Your task to perform on an android device: Show me recent news Image 0: 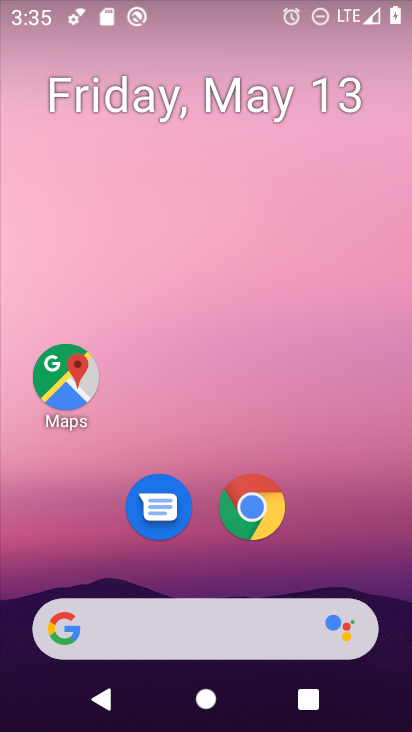
Step 0: drag from (337, 348) to (294, 166)
Your task to perform on an android device: Show me recent news Image 1: 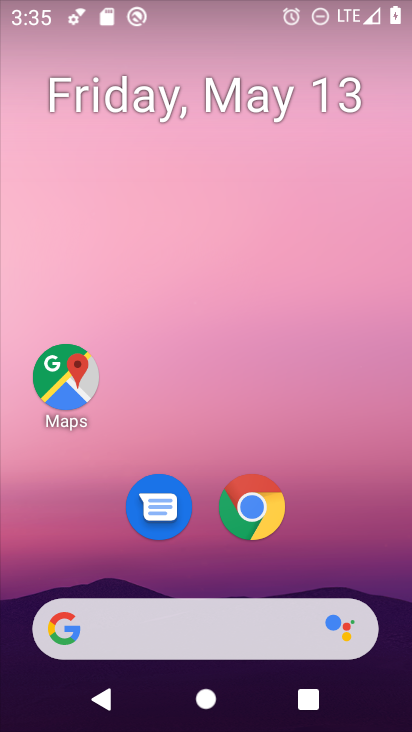
Step 1: click (171, 630)
Your task to perform on an android device: Show me recent news Image 2: 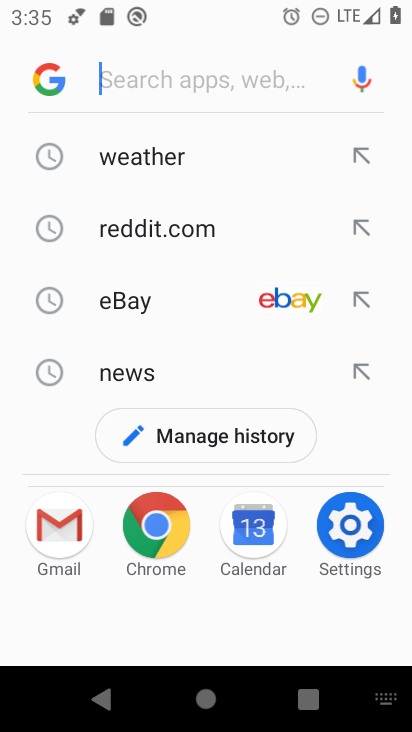
Step 2: type "recent news"
Your task to perform on an android device: Show me recent news Image 3: 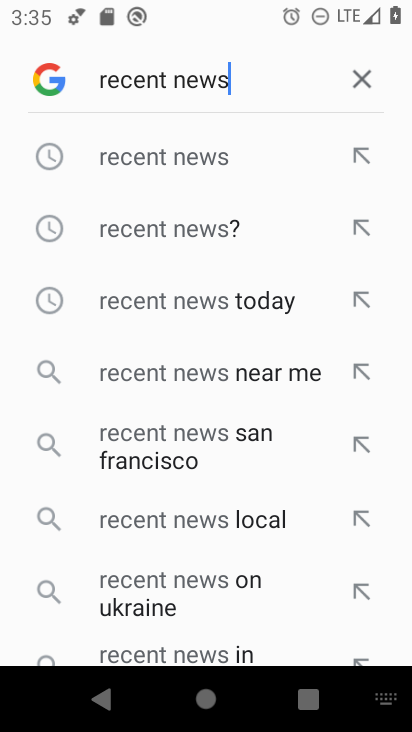
Step 3: click (236, 146)
Your task to perform on an android device: Show me recent news Image 4: 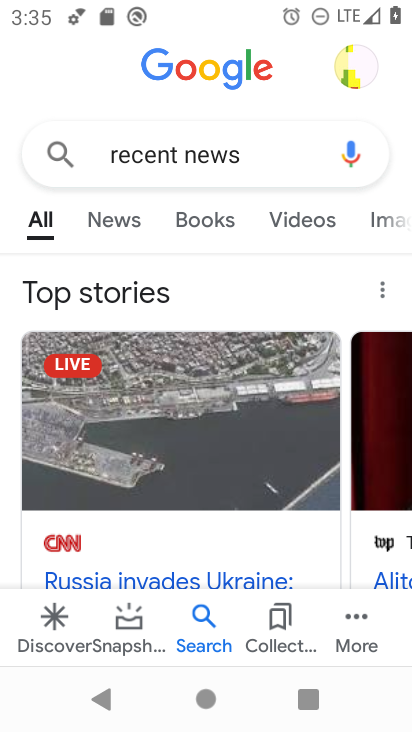
Step 4: task complete